Your task to perform on an android device: Open ESPN.com Image 0: 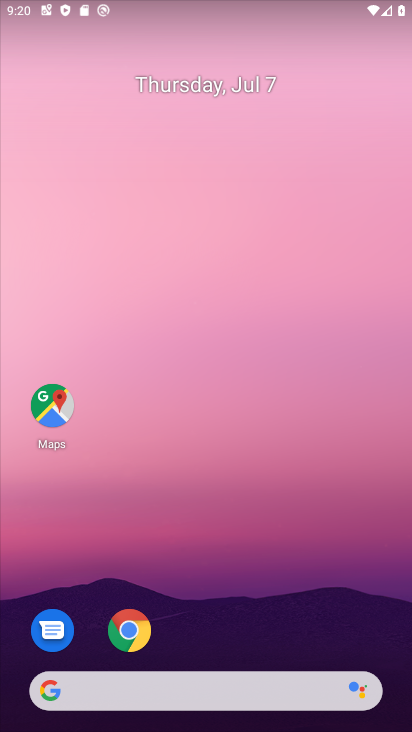
Step 0: drag from (137, 676) to (172, 309)
Your task to perform on an android device: Open ESPN.com Image 1: 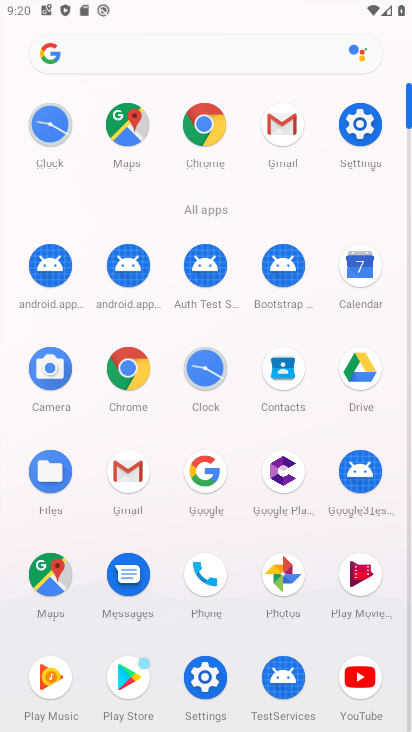
Step 1: click (207, 133)
Your task to perform on an android device: Open ESPN.com Image 2: 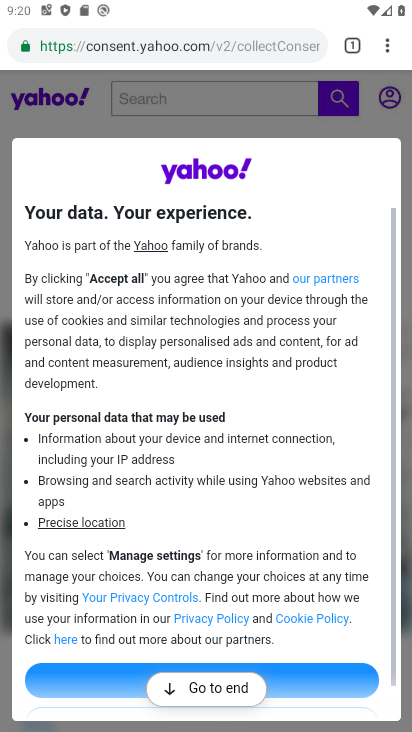
Step 2: click (353, 48)
Your task to perform on an android device: Open ESPN.com Image 3: 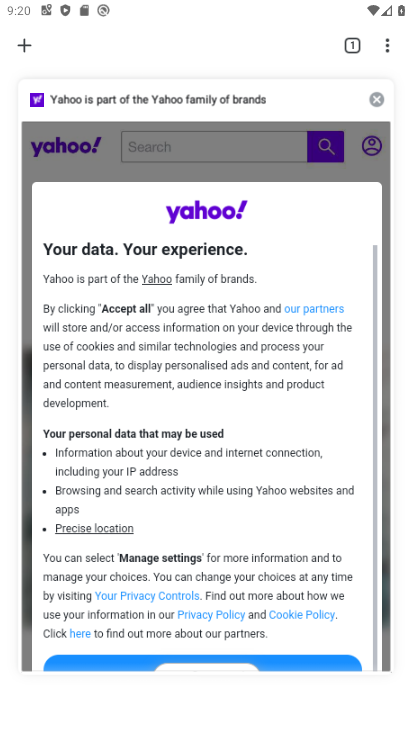
Step 3: click (374, 100)
Your task to perform on an android device: Open ESPN.com Image 4: 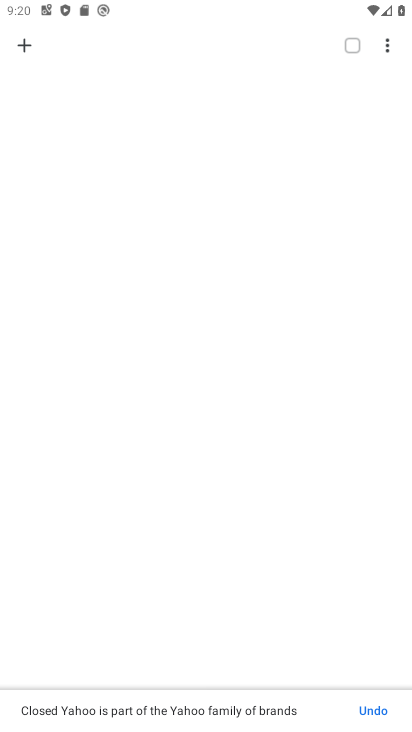
Step 4: click (27, 50)
Your task to perform on an android device: Open ESPN.com Image 5: 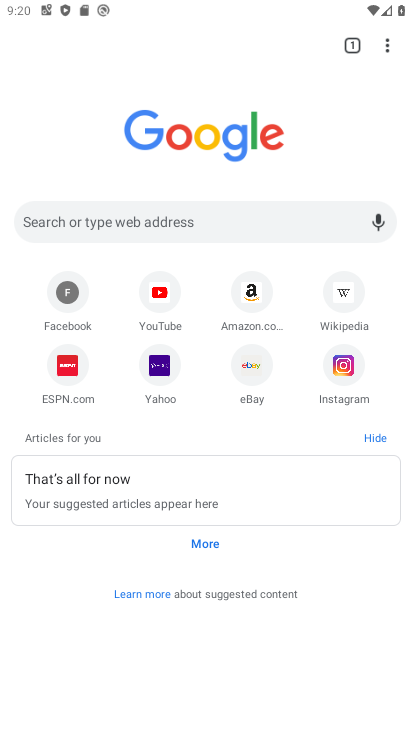
Step 5: click (68, 371)
Your task to perform on an android device: Open ESPN.com Image 6: 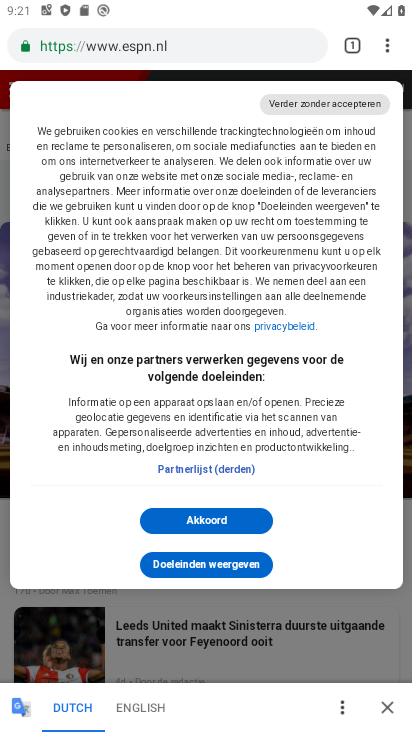
Step 6: task complete